Your task to perform on an android device: install app "Fetch Rewards" Image 0: 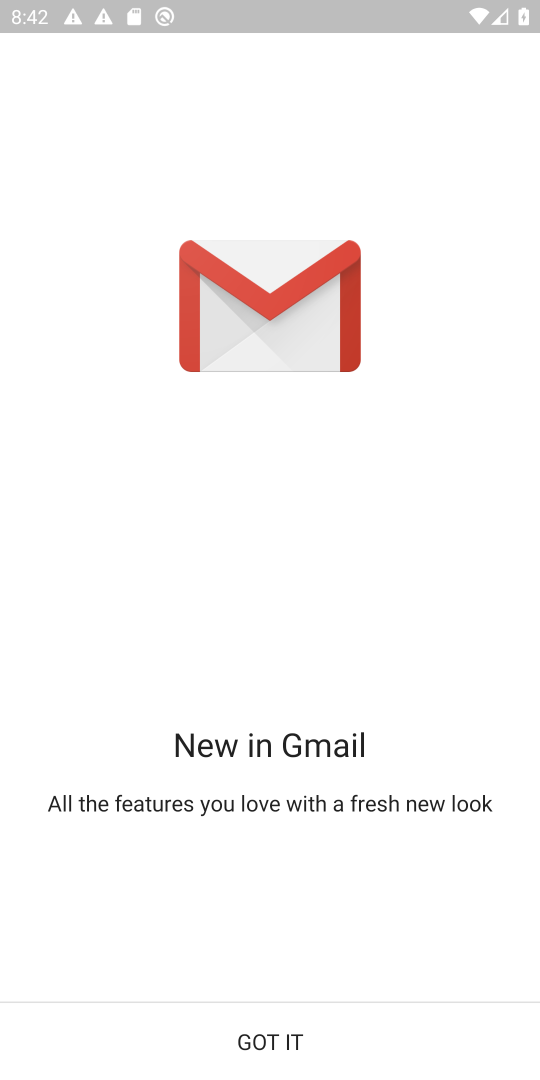
Step 0: press home button
Your task to perform on an android device: install app "Fetch Rewards" Image 1: 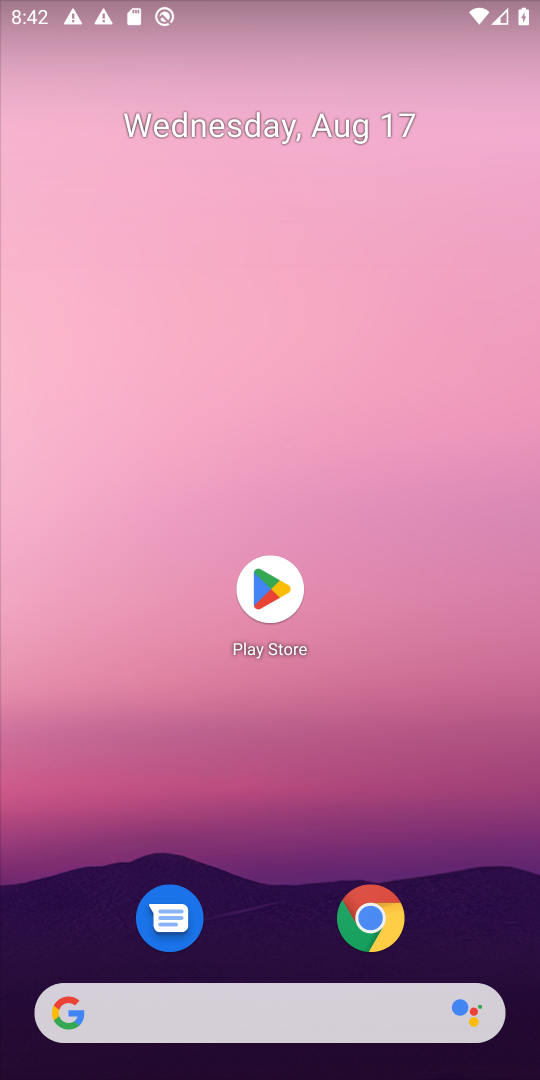
Step 1: click (256, 590)
Your task to perform on an android device: install app "Fetch Rewards" Image 2: 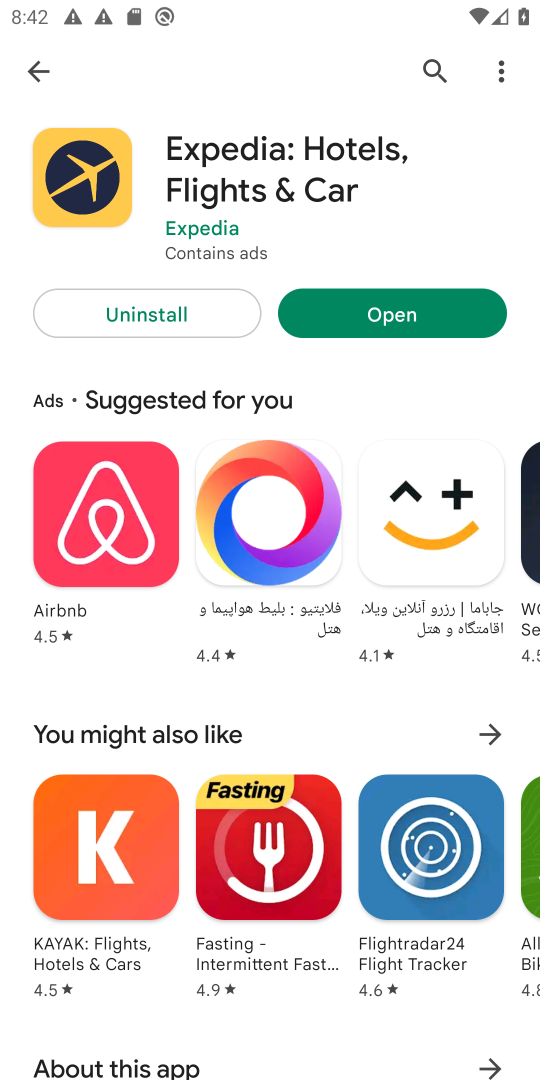
Step 2: click (427, 62)
Your task to perform on an android device: install app "Fetch Rewards" Image 3: 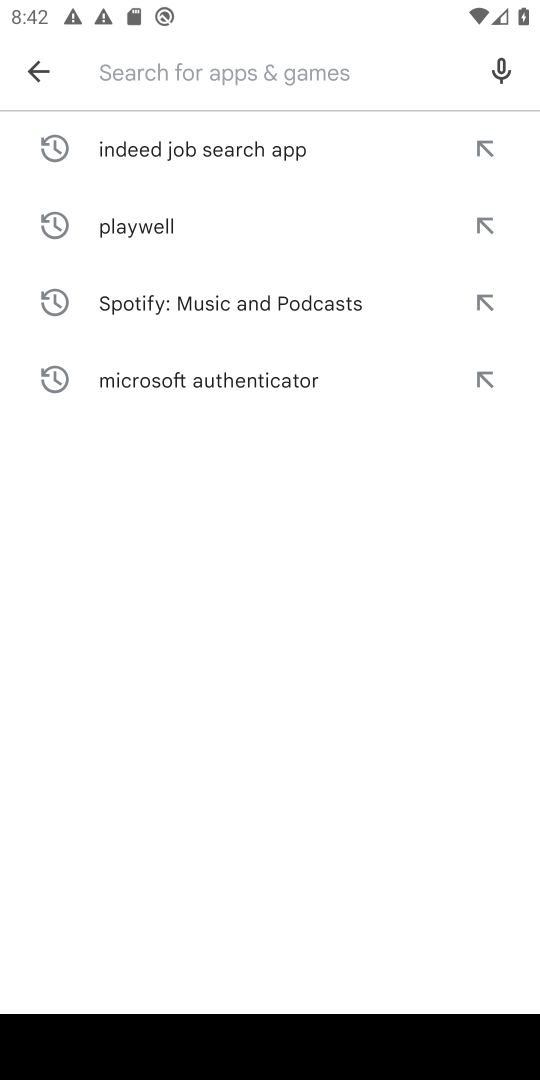
Step 3: type "Fetch Rewards"
Your task to perform on an android device: install app "Fetch Rewards" Image 4: 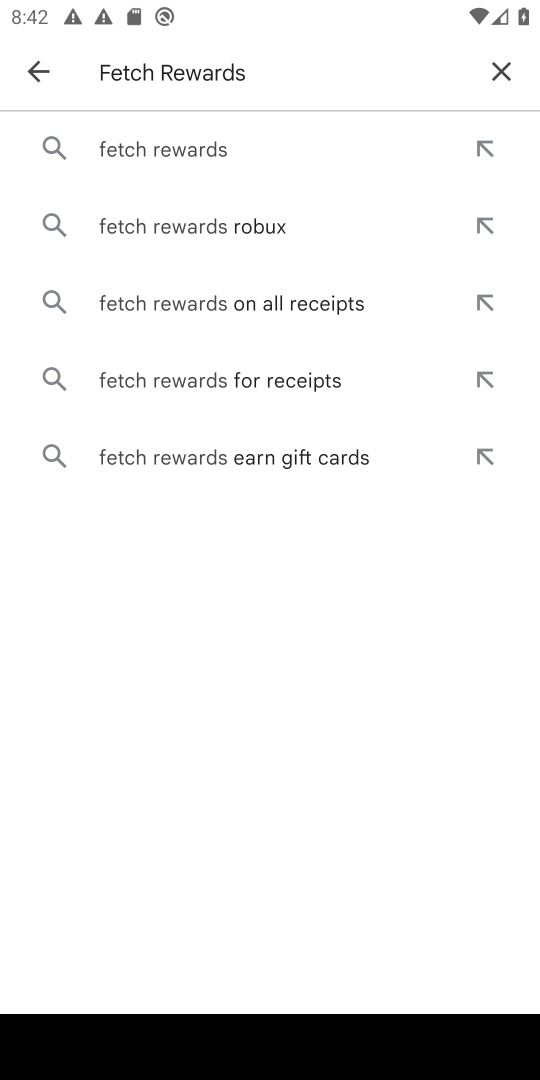
Step 4: click (196, 143)
Your task to perform on an android device: install app "Fetch Rewards" Image 5: 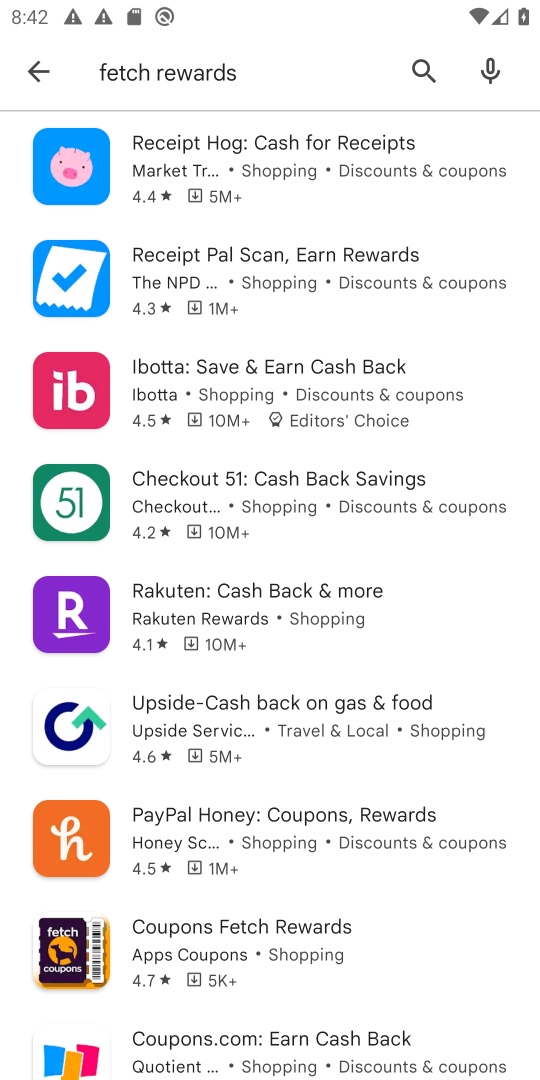
Step 5: task complete